Your task to perform on an android device: turn off location history Image 0: 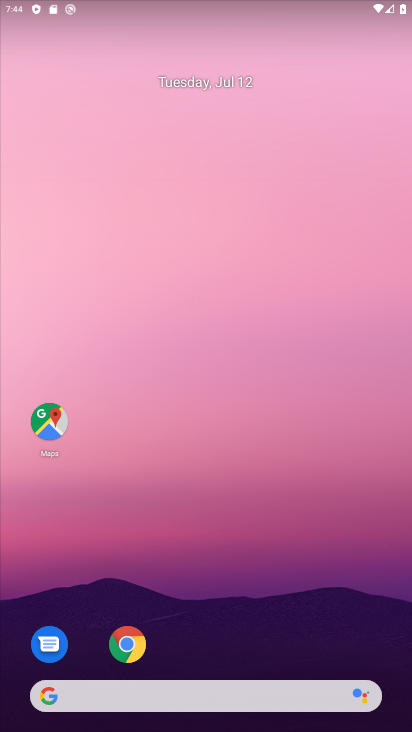
Step 0: drag from (207, 647) to (188, 94)
Your task to perform on an android device: turn off location history Image 1: 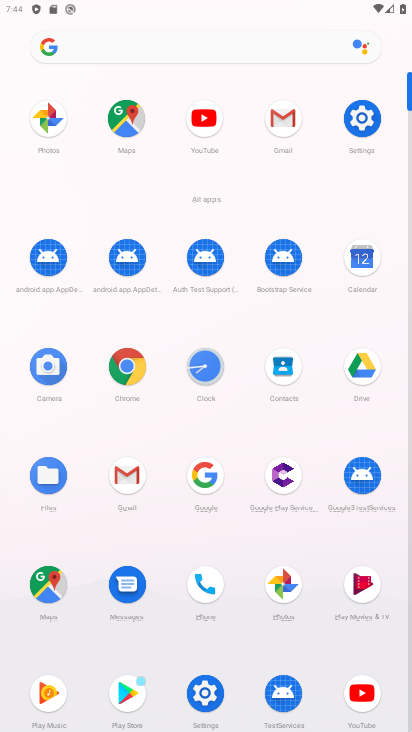
Step 1: click (358, 135)
Your task to perform on an android device: turn off location history Image 2: 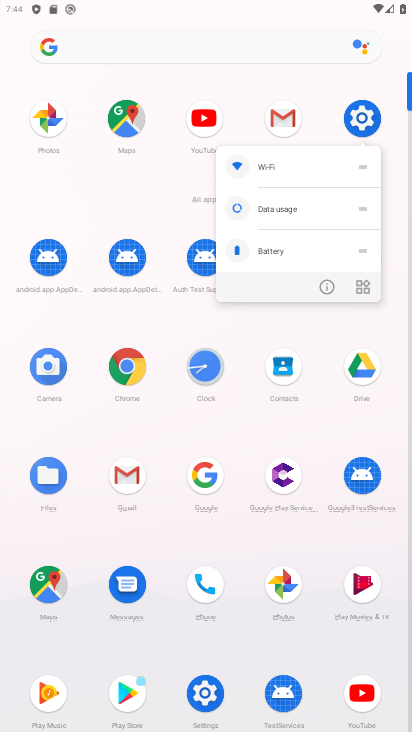
Step 2: click (333, 292)
Your task to perform on an android device: turn off location history Image 3: 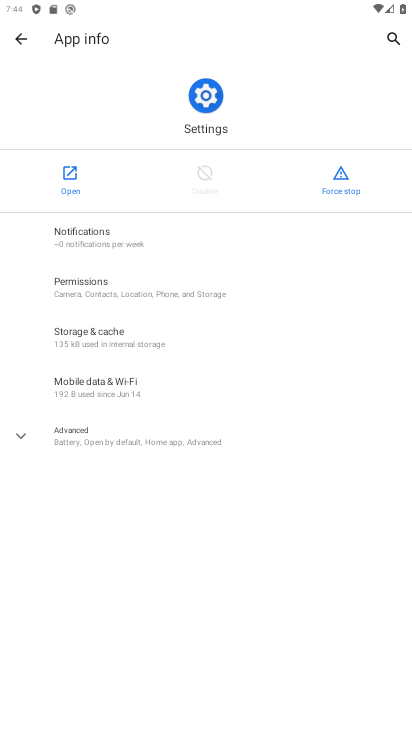
Step 3: click (61, 172)
Your task to perform on an android device: turn off location history Image 4: 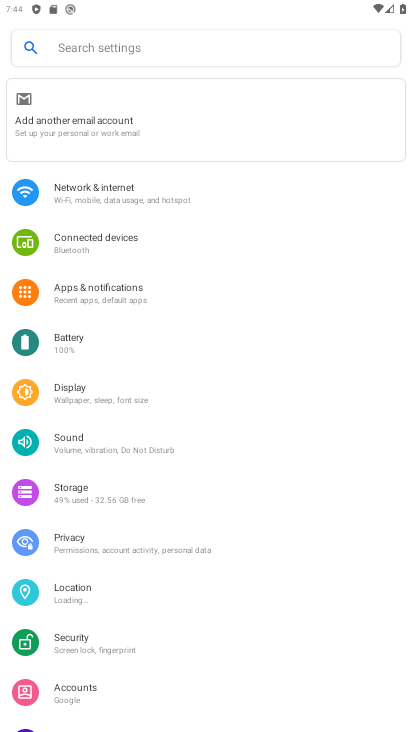
Step 4: click (90, 590)
Your task to perform on an android device: turn off location history Image 5: 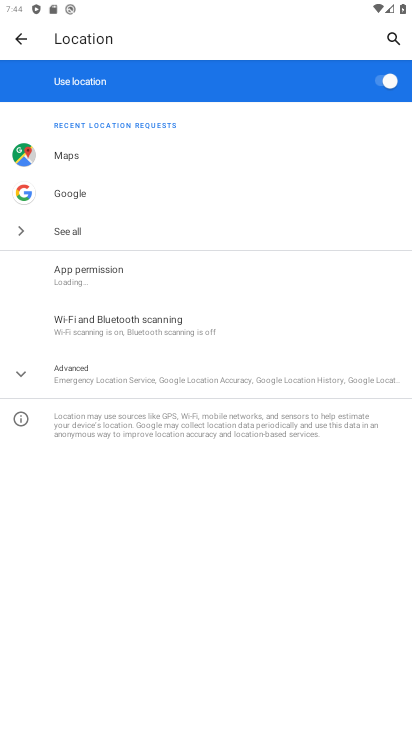
Step 5: click (106, 369)
Your task to perform on an android device: turn off location history Image 6: 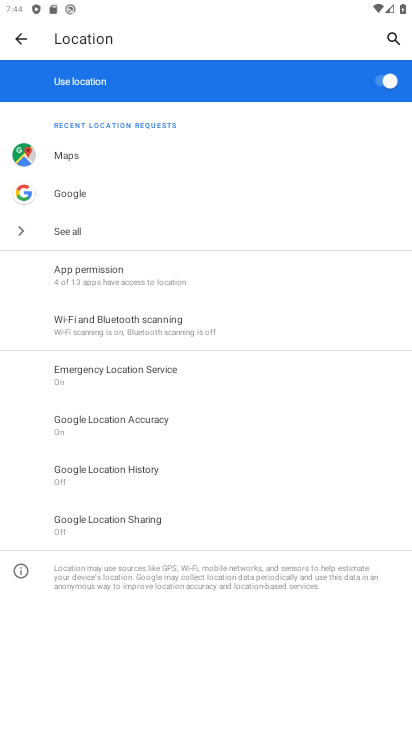
Step 6: click (149, 471)
Your task to perform on an android device: turn off location history Image 7: 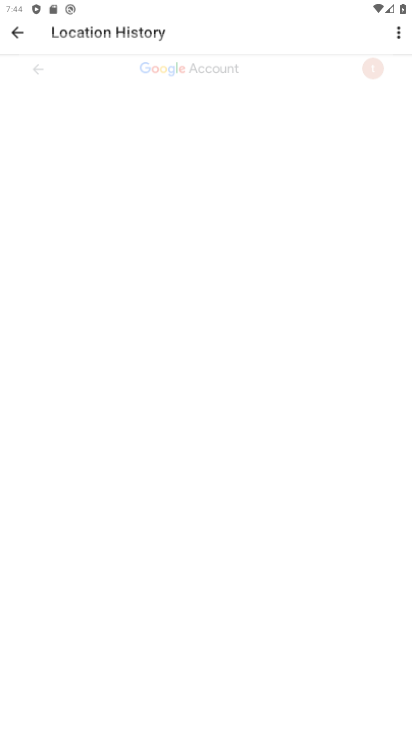
Step 7: drag from (232, 556) to (223, 357)
Your task to perform on an android device: turn off location history Image 8: 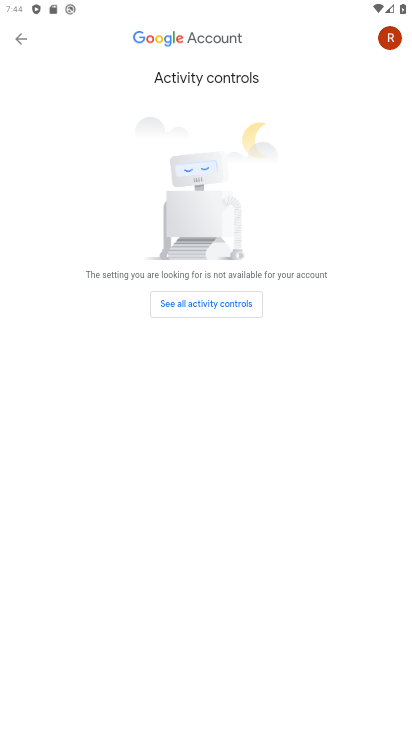
Step 8: click (200, 311)
Your task to perform on an android device: turn off location history Image 9: 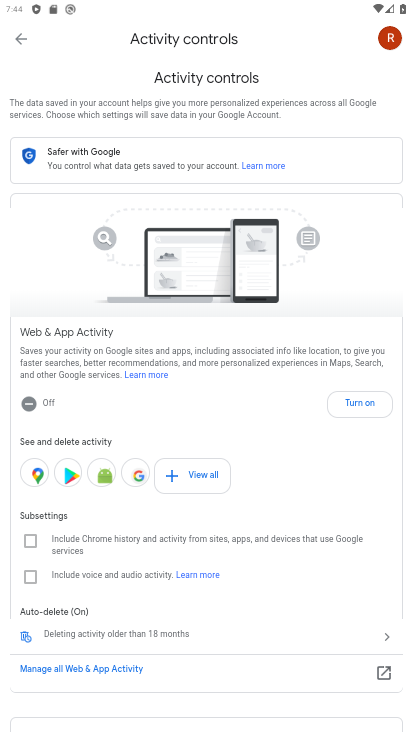
Step 9: task complete